Your task to perform on an android device: Go to CNN.com Image 0: 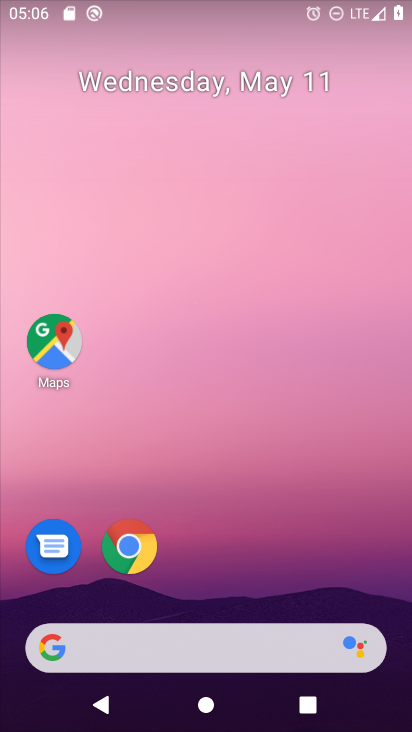
Step 0: drag from (201, 622) to (364, 12)
Your task to perform on an android device: Go to CNN.com Image 1: 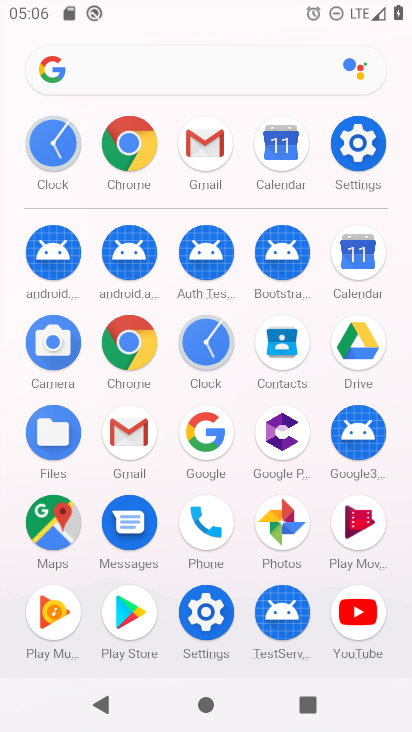
Step 1: click (113, 345)
Your task to perform on an android device: Go to CNN.com Image 2: 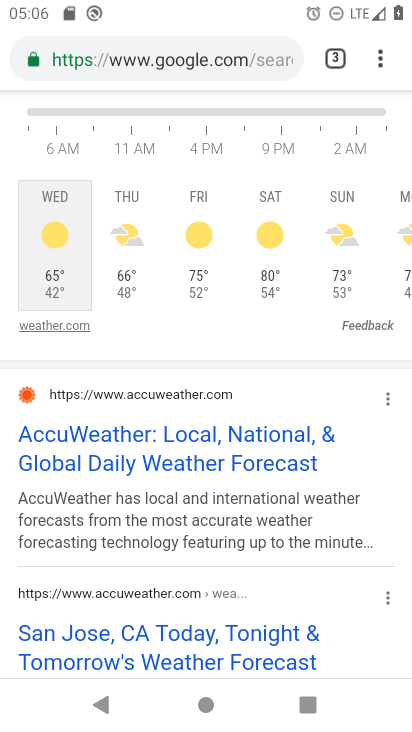
Step 2: click (274, 54)
Your task to perform on an android device: Go to CNN.com Image 3: 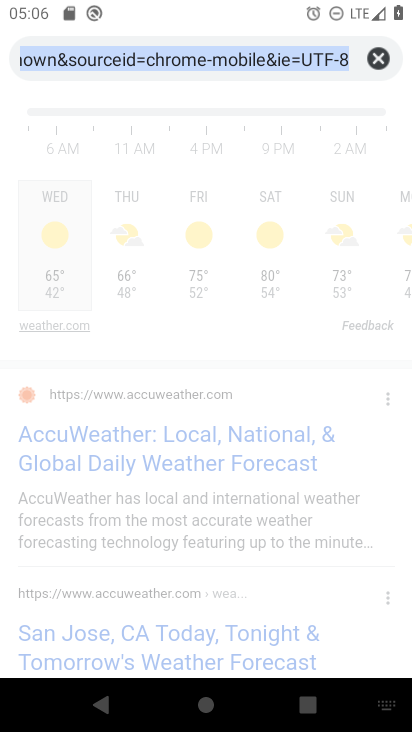
Step 3: click (377, 56)
Your task to perform on an android device: Go to CNN.com Image 4: 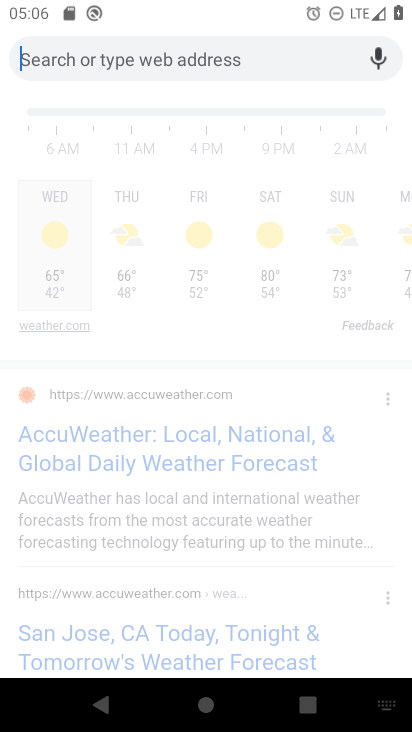
Step 4: type "cnn.com"
Your task to perform on an android device: Go to CNN.com Image 5: 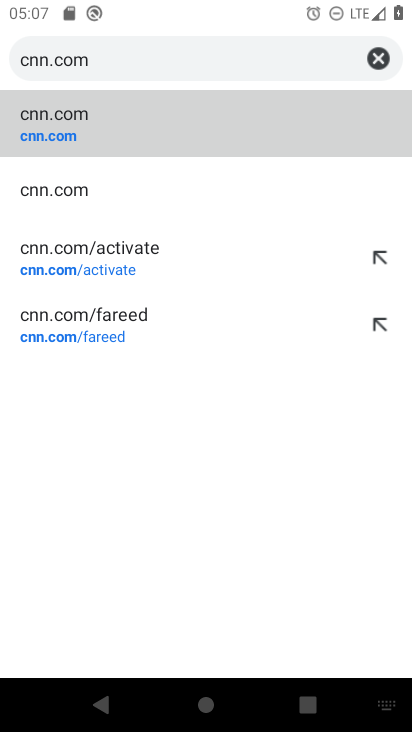
Step 5: click (218, 132)
Your task to perform on an android device: Go to CNN.com Image 6: 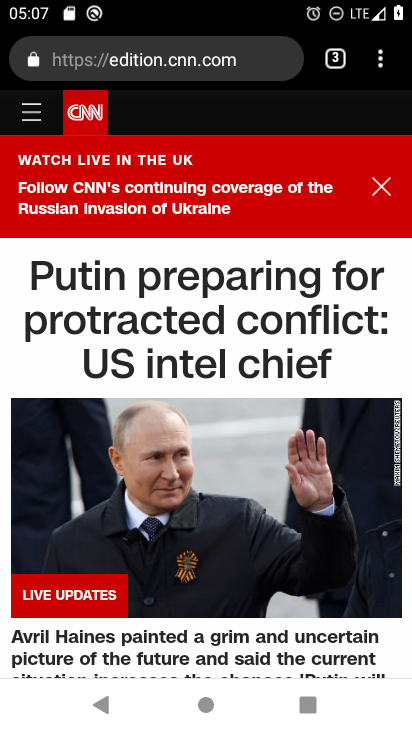
Step 6: task complete